Your task to perform on an android device: Go to Google Image 0: 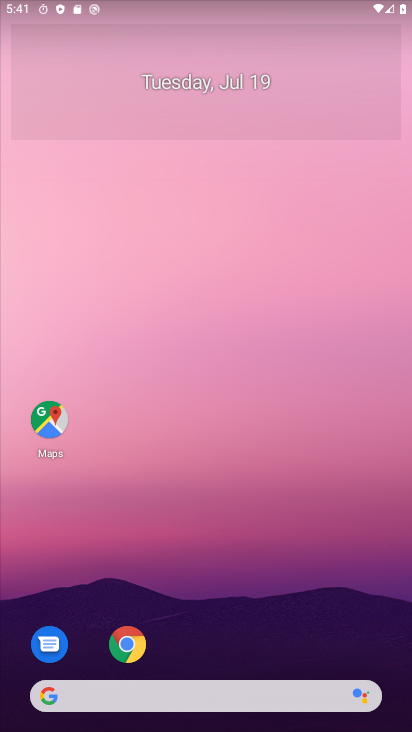
Step 0: click (166, 700)
Your task to perform on an android device: Go to Google Image 1: 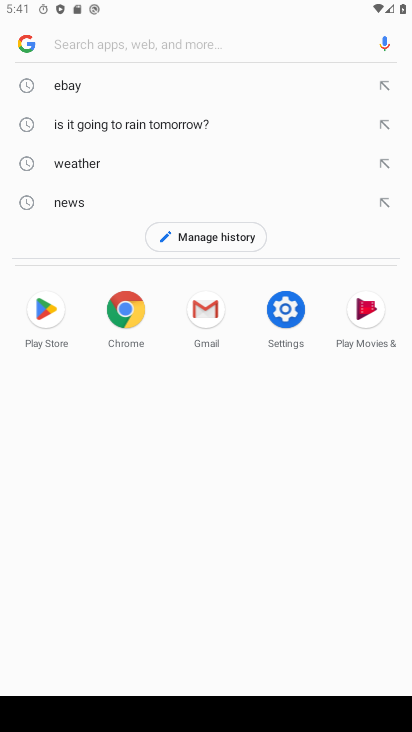
Step 1: task complete